Your task to perform on an android device: install app "Upside-Cash back on gas & food" Image 0: 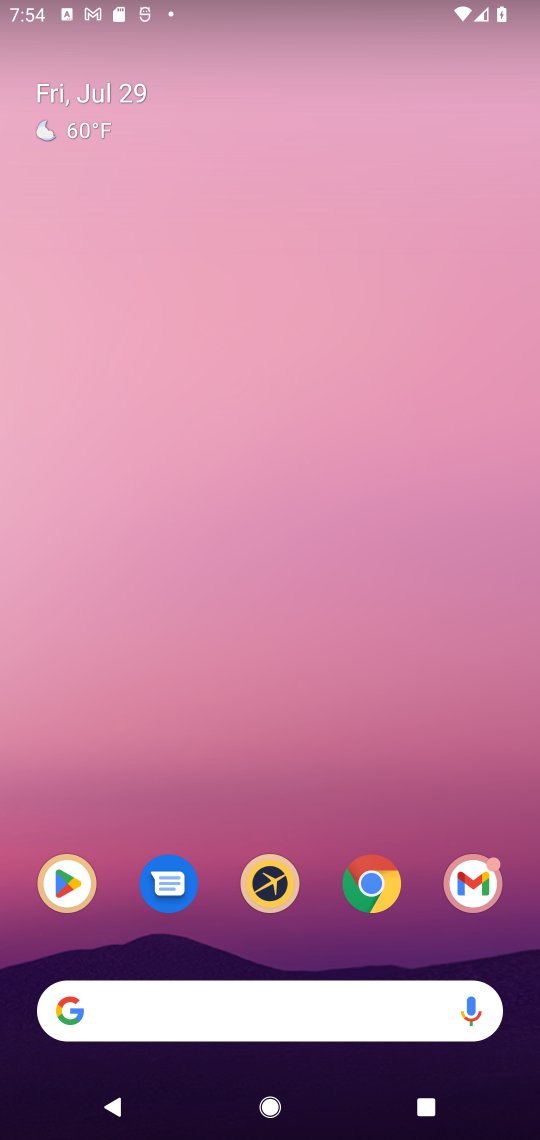
Step 0: click (67, 887)
Your task to perform on an android device: install app "Upside-Cash back on gas & food" Image 1: 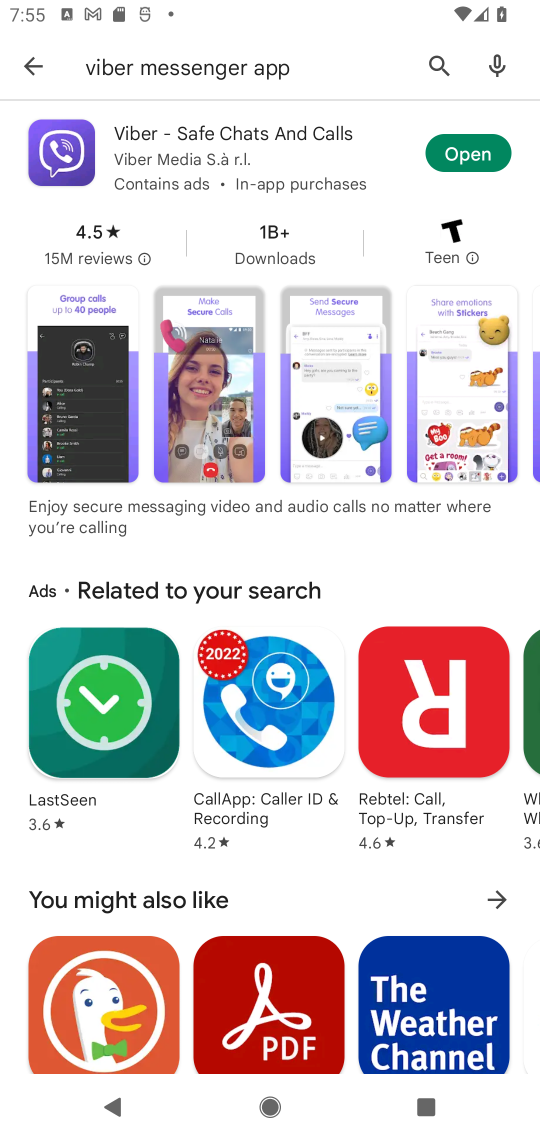
Step 1: click (451, 64)
Your task to perform on an android device: install app "Upside-Cash back on gas & food" Image 2: 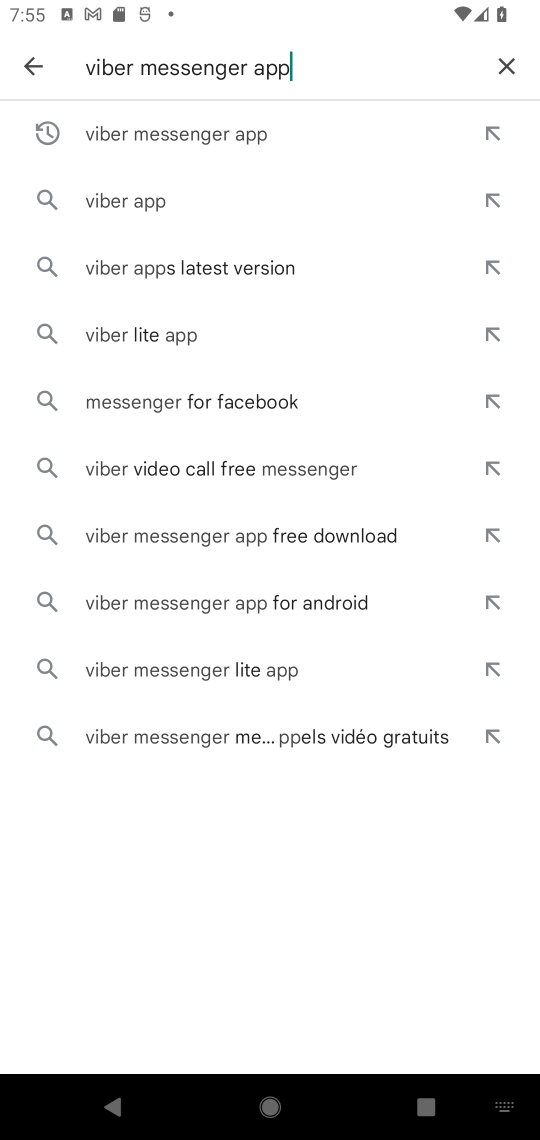
Step 2: click (516, 57)
Your task to perform on an android device: install app "Upside-Cash back on gas & food" Image 3: 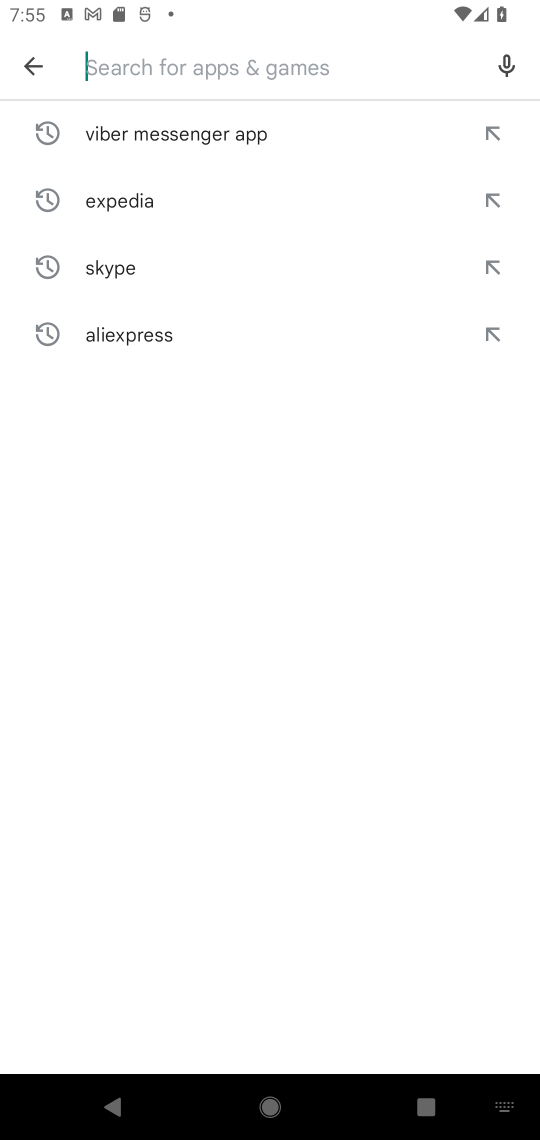
Step 3: click (248, 74)
Your task to perform on an android device: install app "Upside-Cash back on gas & food" Image 4: 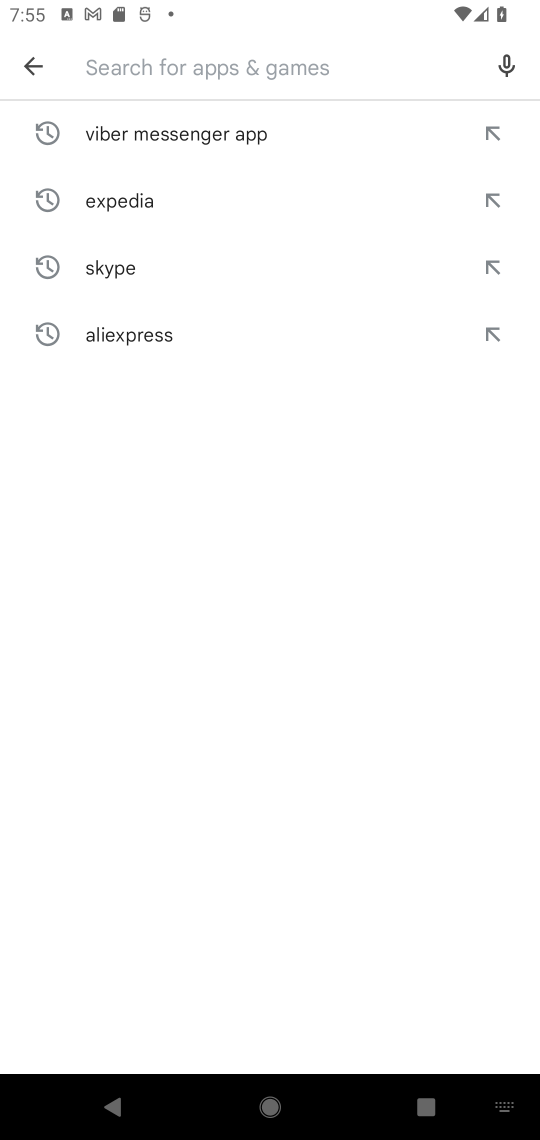
Step 4: type "upside cash"
Your task to perform on an android device: install app "Upside-Cash back on gas & food" Image 5: 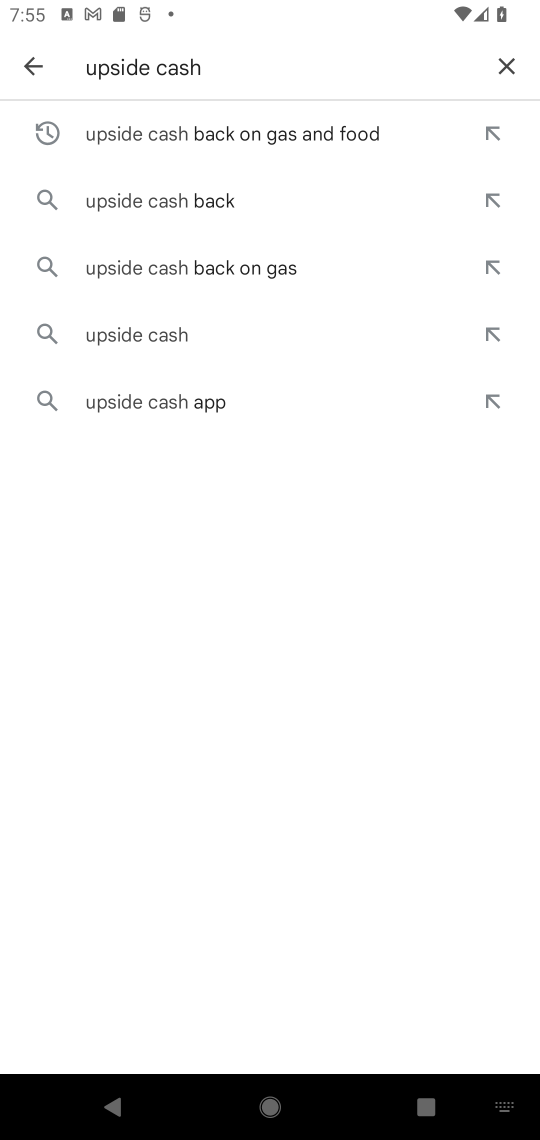
Step 5: click (196, 135)
Your task to perform on an android device: install app "Upside-Cash back on gas & food" Image 6: 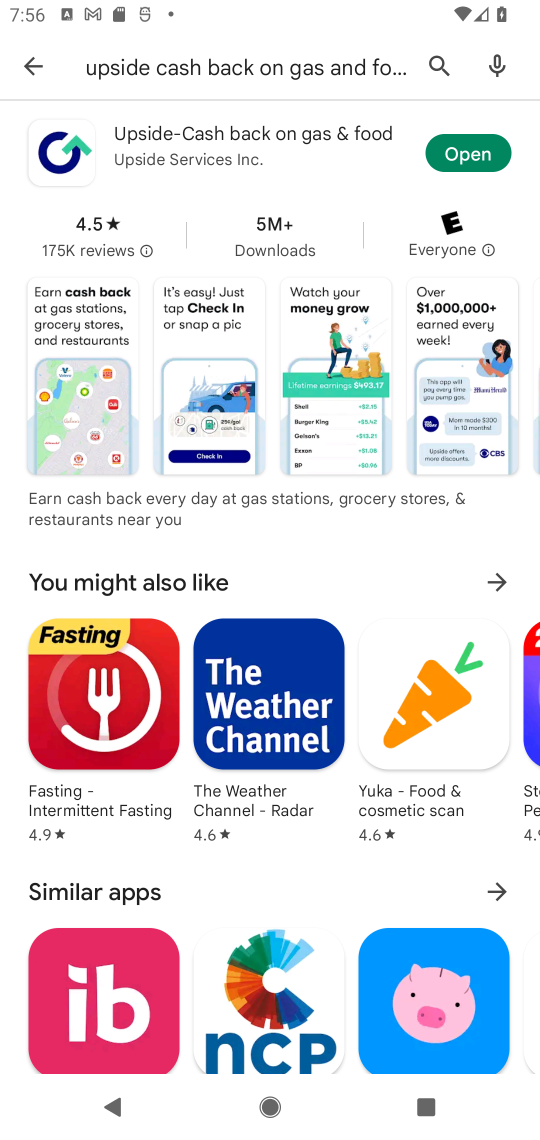
Step 6: click (460, 152)
Your task to perform on an android device: install app "Upside-Cash back on gas & food" Image 7: 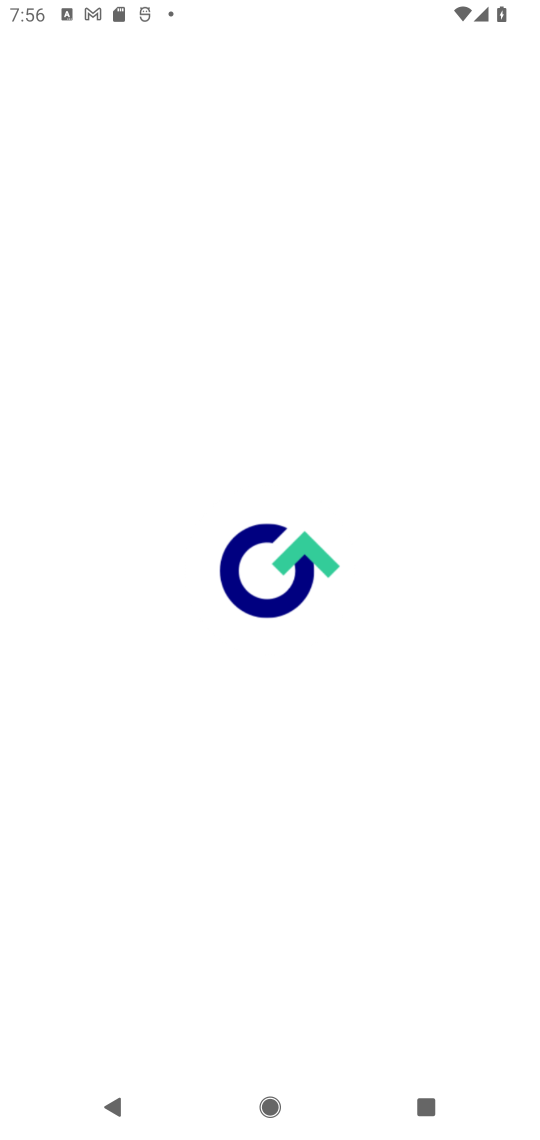
Step 7: task complete